Your task to perform on an android device: clear all cookies in the chrome app Image 0: 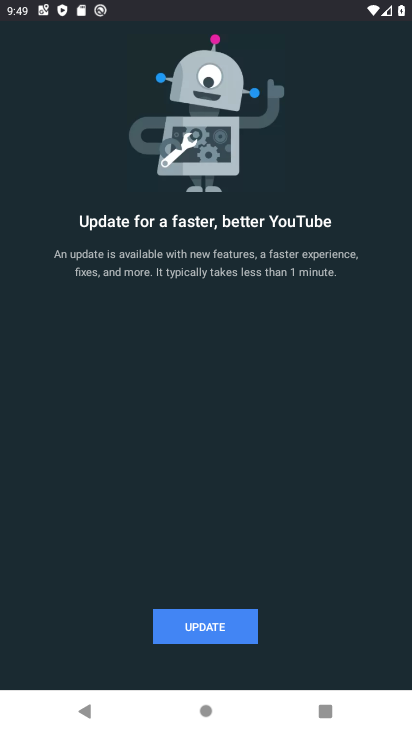
Step 0: press home button
Your task to perform on an android device: clear all cookies in the chrome app Image 1: 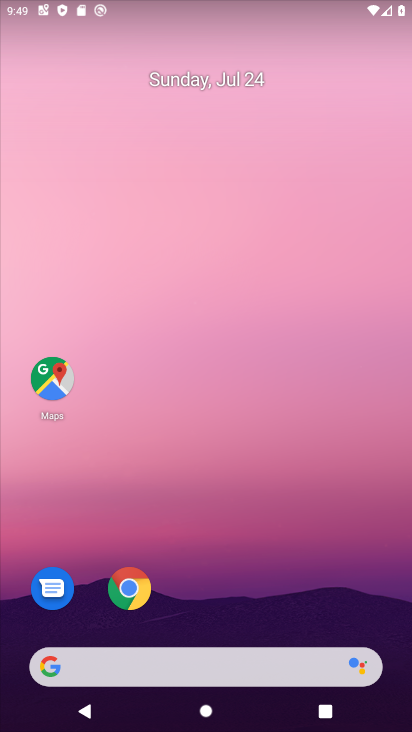
Step 1: drag from (260, 633) to (188, 148)
Your task to perform on an android device: clear all cookies in the chrome app Image 2: 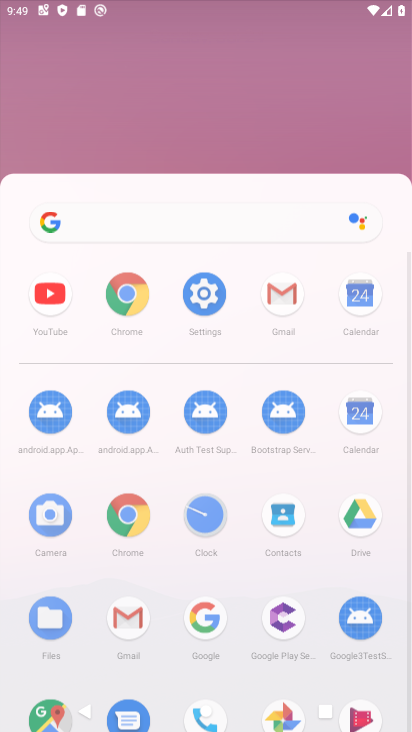
Step 2: drag from (233, 241) to (265, 154)
Your task to perform on an android device: clear all cookies in the chrome app Image 3: 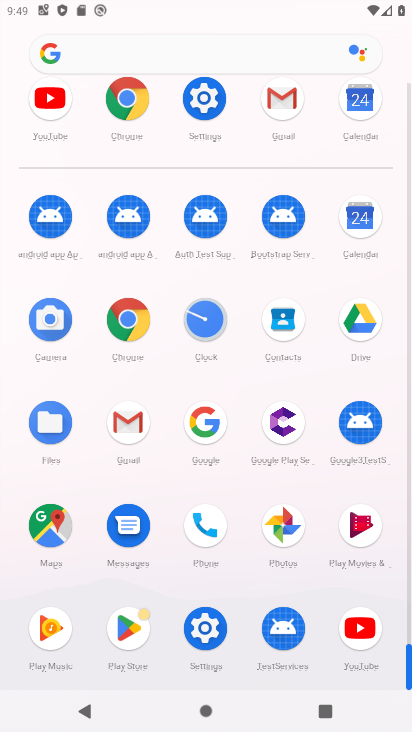
Step 3: click (113, 321)
Your task to perform on an android device: clear all cookies in the chrome app Image 4: 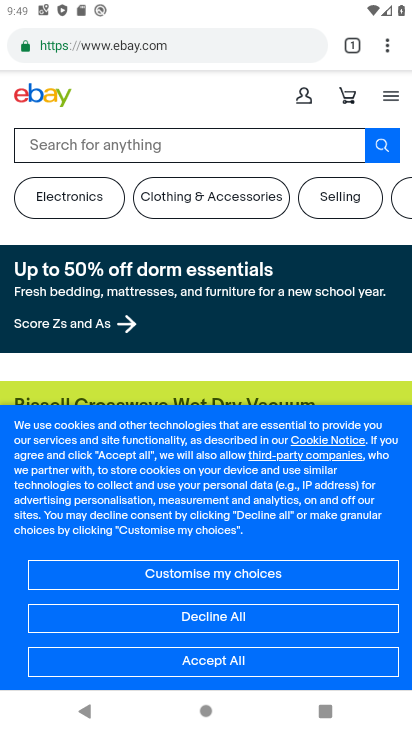
Step 4: drag from (382, 57) to (216, 535)
Your task to perform on an android device: clear all cookies in the chrome app Image 5: 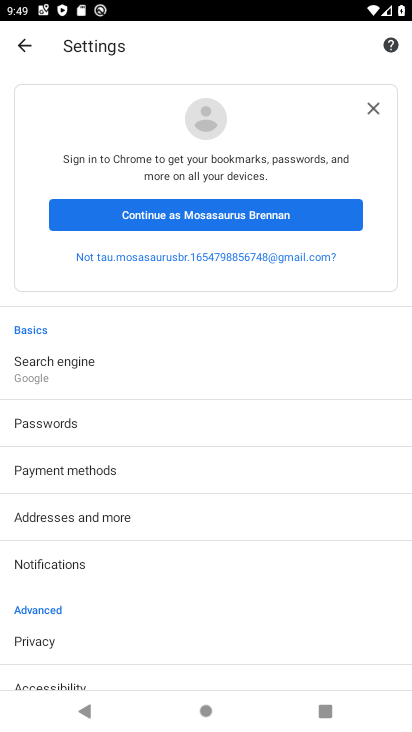
Step 5: drag from (56, 379) to (45, 246)
Your task to perform on an android device: clear all cookies in the chrome app Image 6: 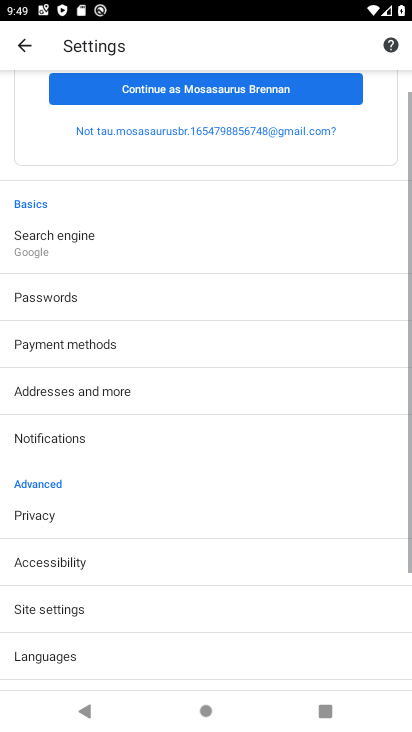
Step 6: drag from (72, 473) to (73, 334)
Your task to perform on an android device: clear all cookies in the chrome app Image 7: 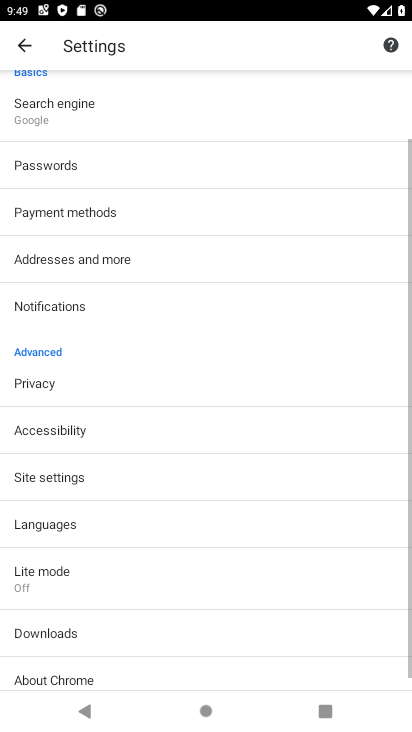
Step 7: drag from (60, 531) to (60, 367)
Your task to perform on an android device: clear all cookies in the chrome app Image 8: 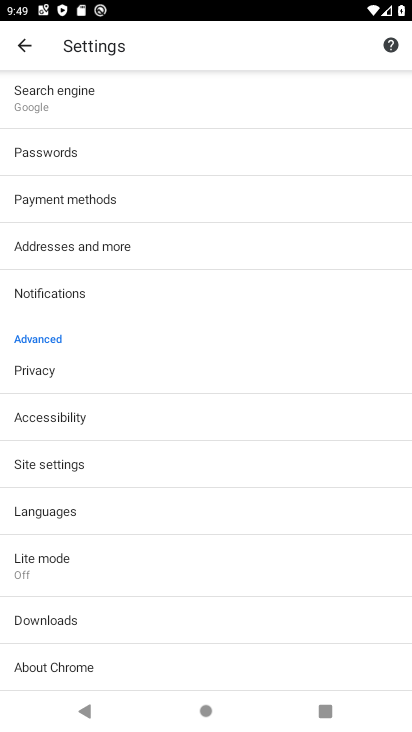
Step 8: click (37, 457)
Your task to perform on an android device: clear all cookies in the chrome app Image 9: 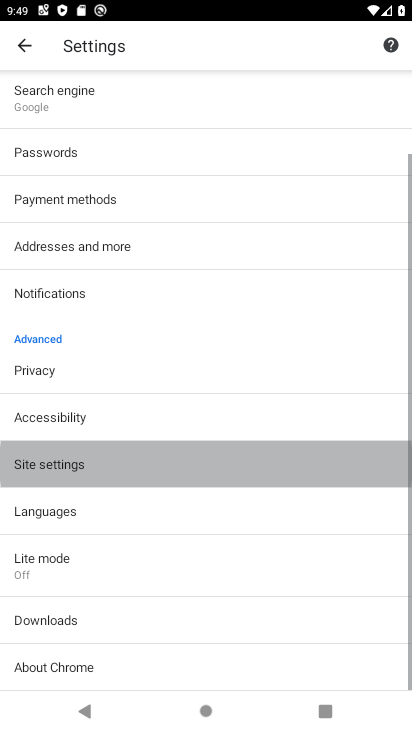
Step 9: click (38, 458)
Your task to perform on an android device: clear all cookies in the chrome app Image 10: 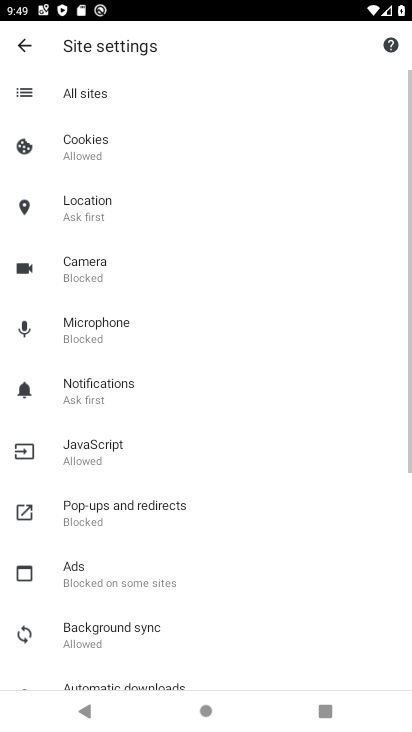
Step 10: click (69, 126)
Your task to perform on an android device: clear all cookies in the chrome app Image 11: 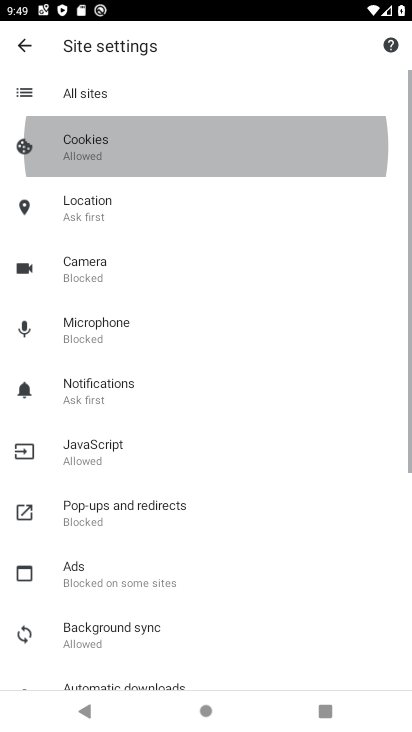
Step 11: click (72, 136)
Your task to perform on an android device: clear all cookies in the chrome app Image 12: 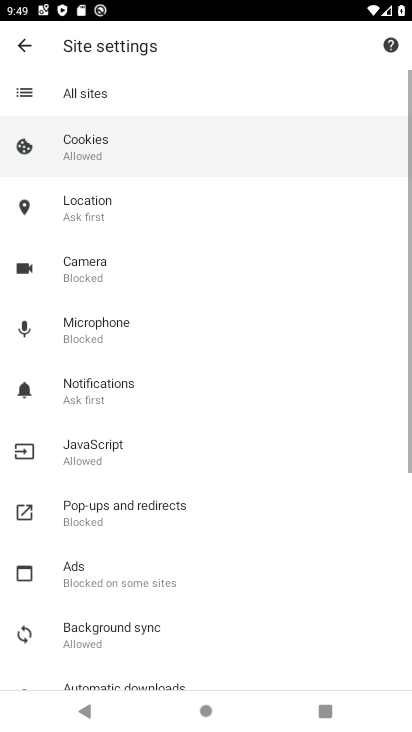
Step 12: click (74, 143)
Your task to perform on an android device: clear all cookies in the chrome app Image 13: 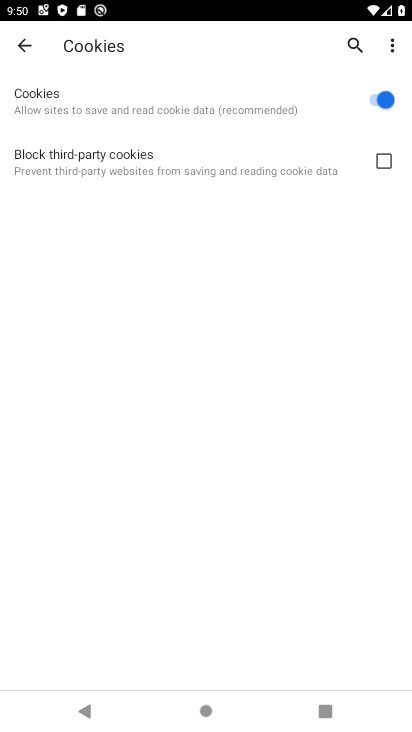
Step 13: click (391, 91)
Your task to perform on an android device: clear all cookies in the chrome app Image 14: 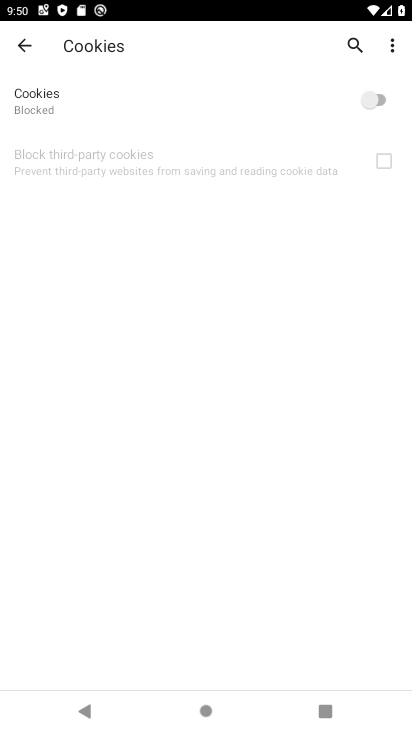
Step 14: task complete